Your task to perform on an android device: Open my contact list Image 0: 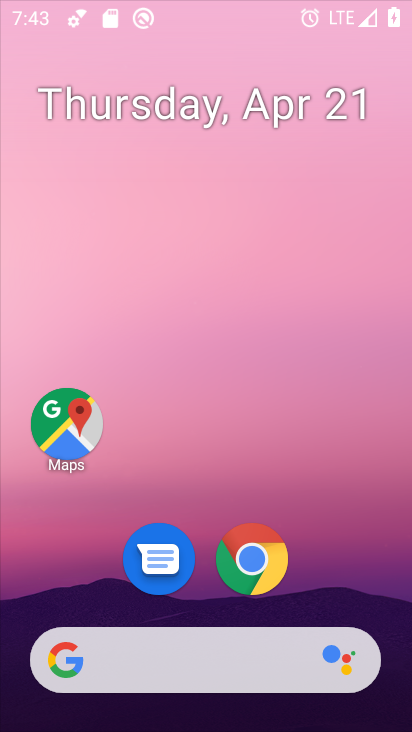
Step 0: click (348, 260)
Your task to perform on an android device: Open my contact list Image 1: 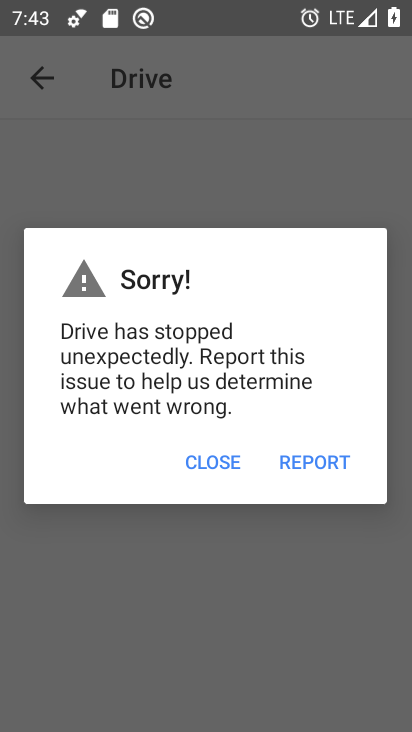
Step 1: press home button
Your task to perform on an android device: Open my contact list Image 2: 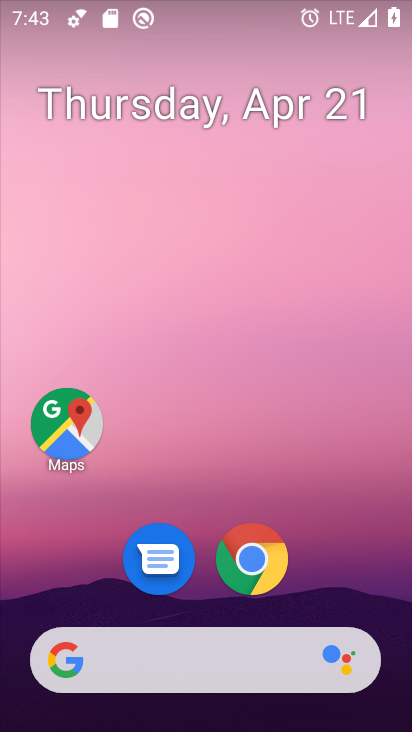
Step 2: drag from (381, 588) to (360, 125)
Your task to perform on an android device: Open my contact list Image 3: 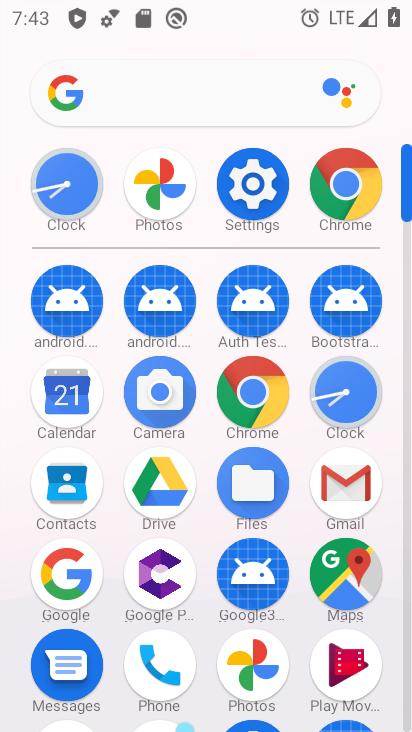
Step 3: click (57, 481)
Your task to perform on an android device: Open my contact list Image 4: 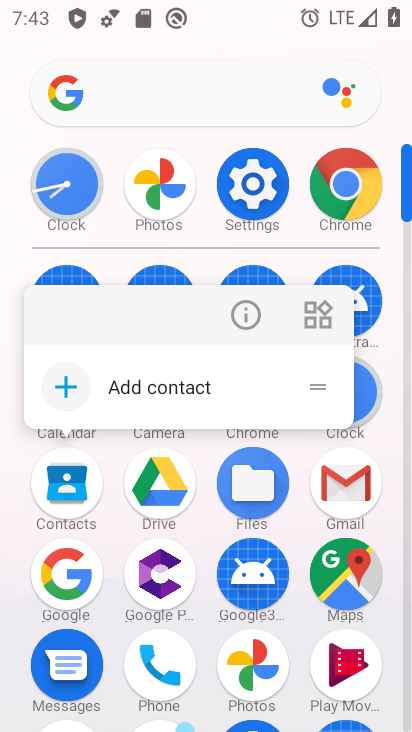
Step 4: click (62, 504)
Your task to perform on an android device: Open my contact list Image 5: 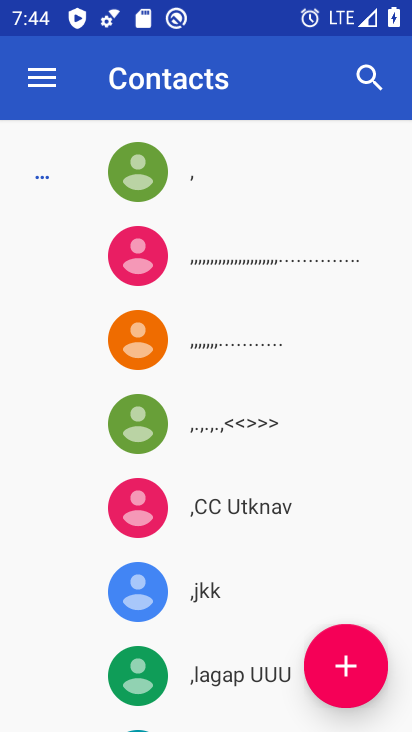
Step 5: task complete